Your task to perform on an android device: set the stopwatch Image 0: 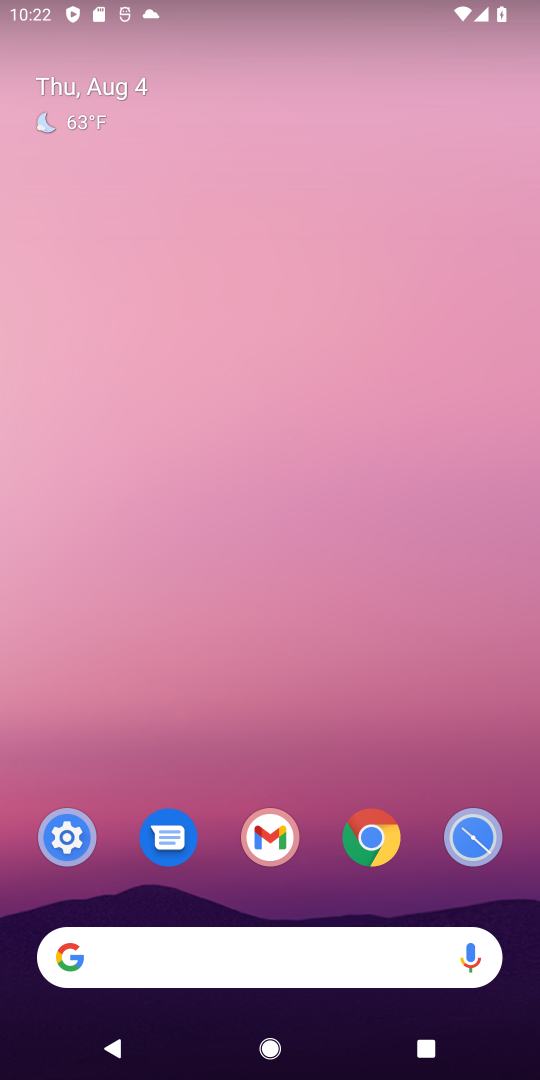
Step 0: drag from (237, 688) to (241, 164)
Your task to perform on an android device: set the stopwatch Image 1: 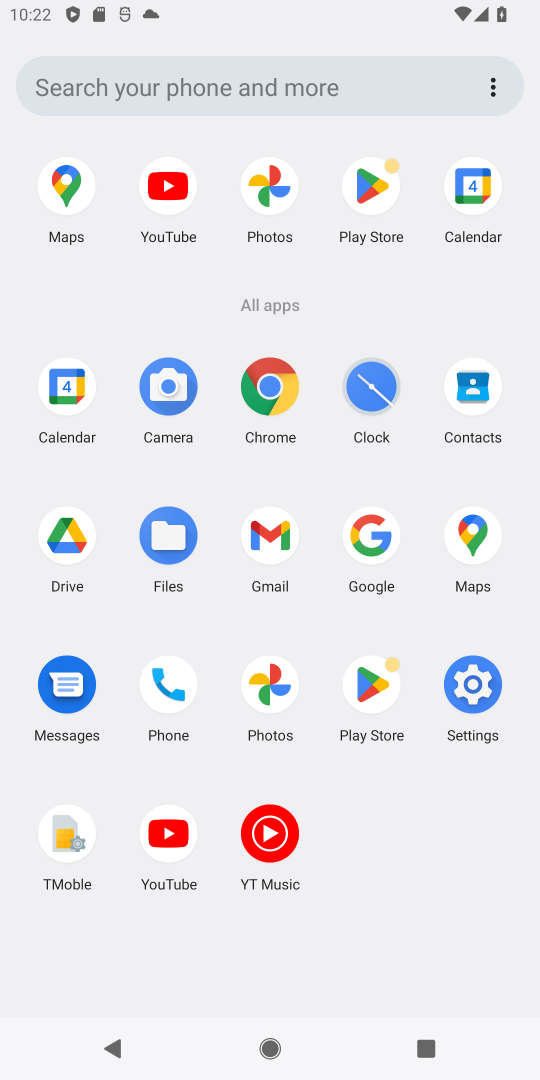
Step 1: click (374, 373)
Your task to perform on an android device: set the stopwatch Image 2: 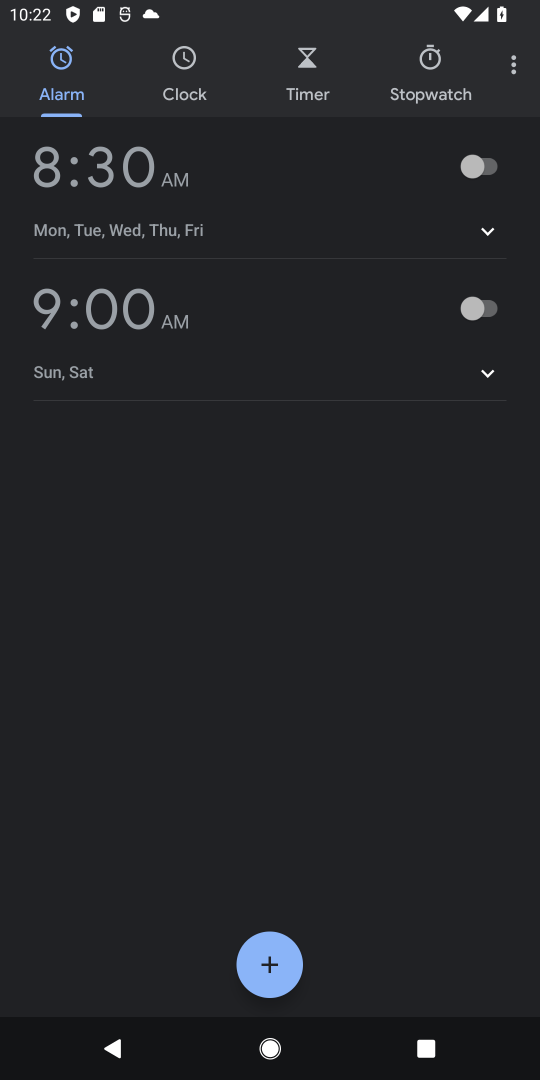
Step 2: click (437, 56)
Your task to perform on an android device: set the stopwatch Image 3: 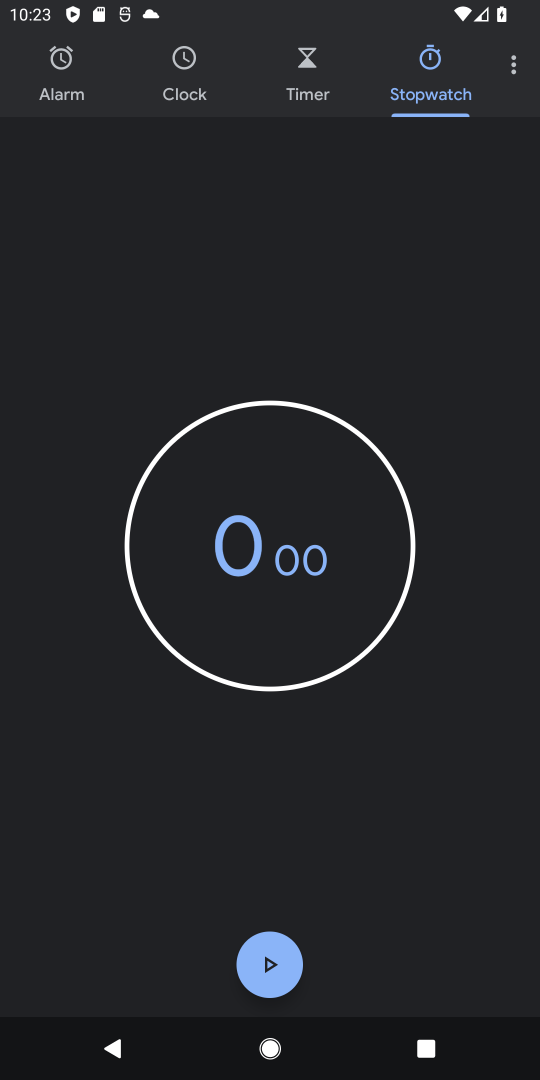
Step 3: task complete